Your task to perform on an android device: Turn off the flashlight Image 0: 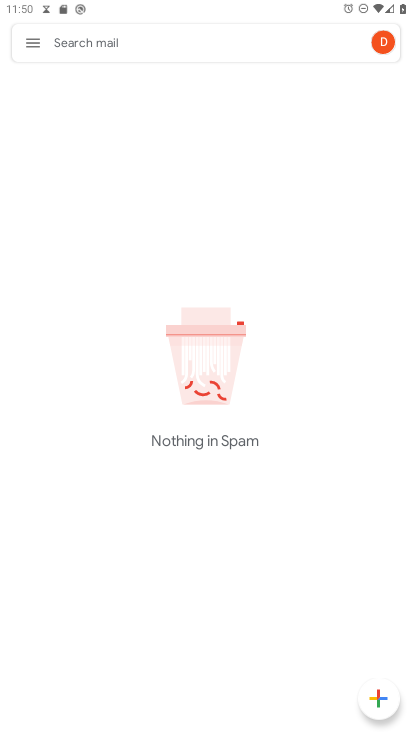
Step 0: press back button
Your task to perform on an android device: Turn off the flashlight Image 1: 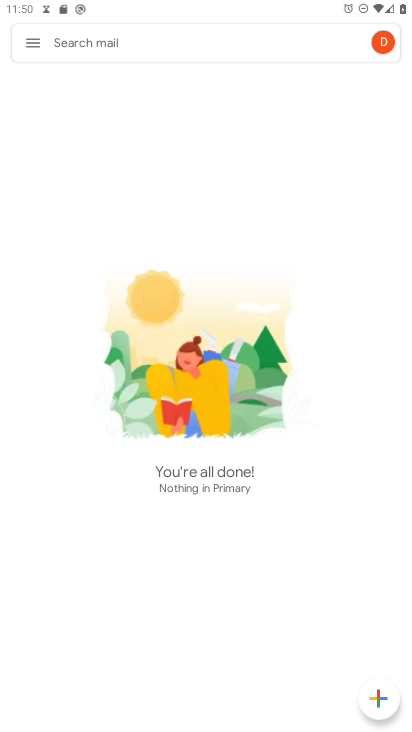
Step 1: press back button
Your task to perform on an android device: Turn off the flashlight Image 2: 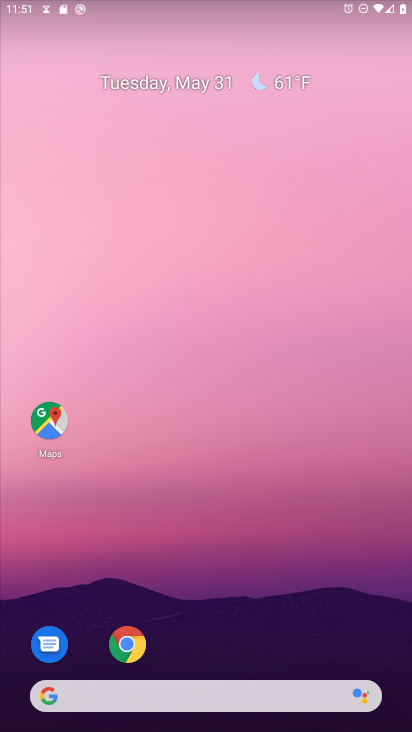
Step 2: drag from (176, 676) to (237, 110)
Your task to perform on an android device: Turn off the flashlight Image 3: 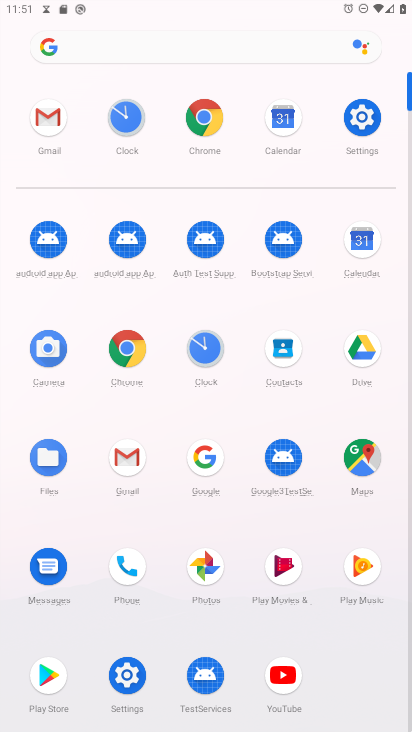
Step 3: click (363, 121)
Your task to perform on an android device: Turn off the flashlight Image 4: 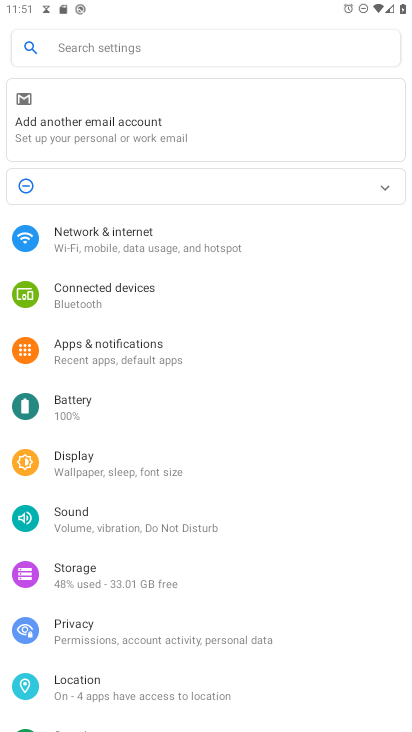
Step 4: click (90, 47)
Your task to perform on an android device: Turn off the flashlight Image 5: 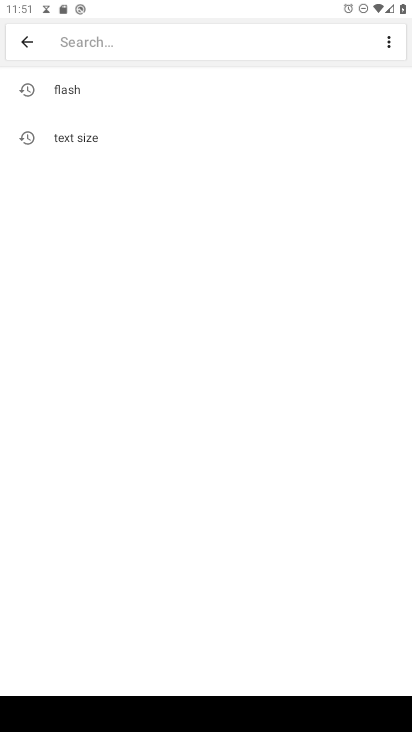
Step 5: click (85, 90)
Your task to perform on an android device: Turn off the flashlight Image 6: 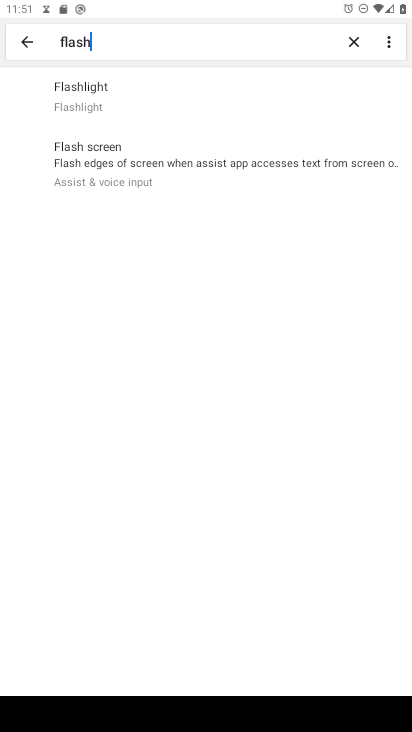
Step 6: click (92, 86)
Your task to perform on an android device: Turn off the flashlight Image 7: 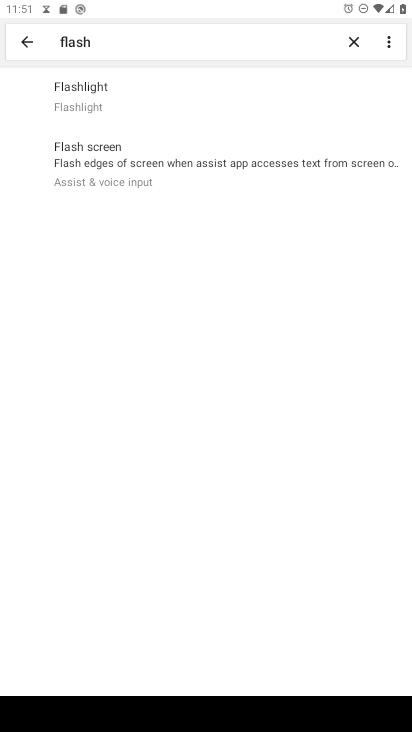
Step 7: task complete